Your task to perform on an android device: toggle notification dots Image 0: 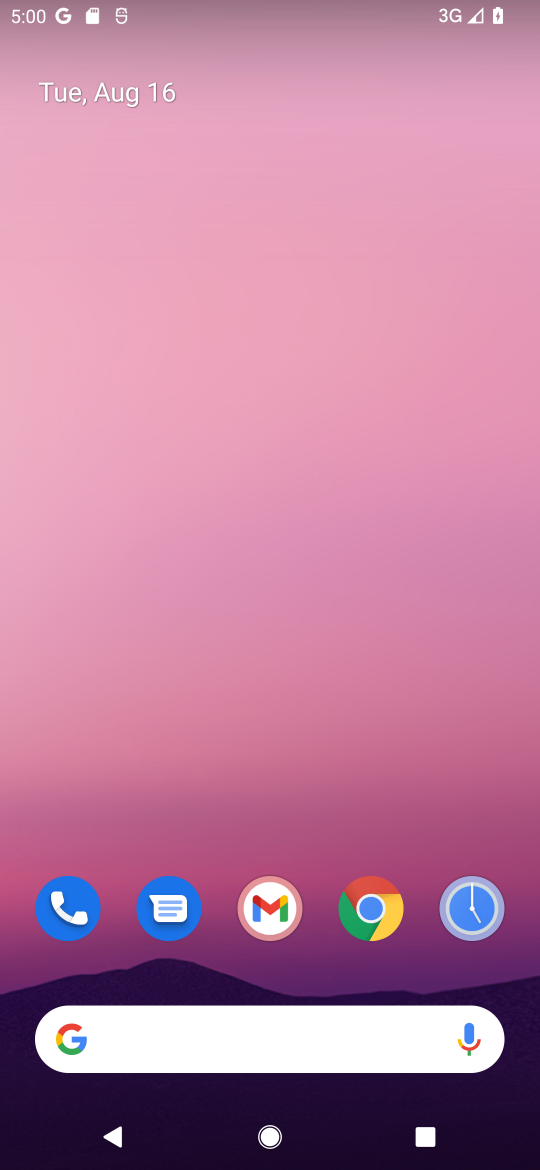
Step 0: drag from (228, 982) to (393, 135)
Your task to perform on an android device: toggle notification dots Image 1: 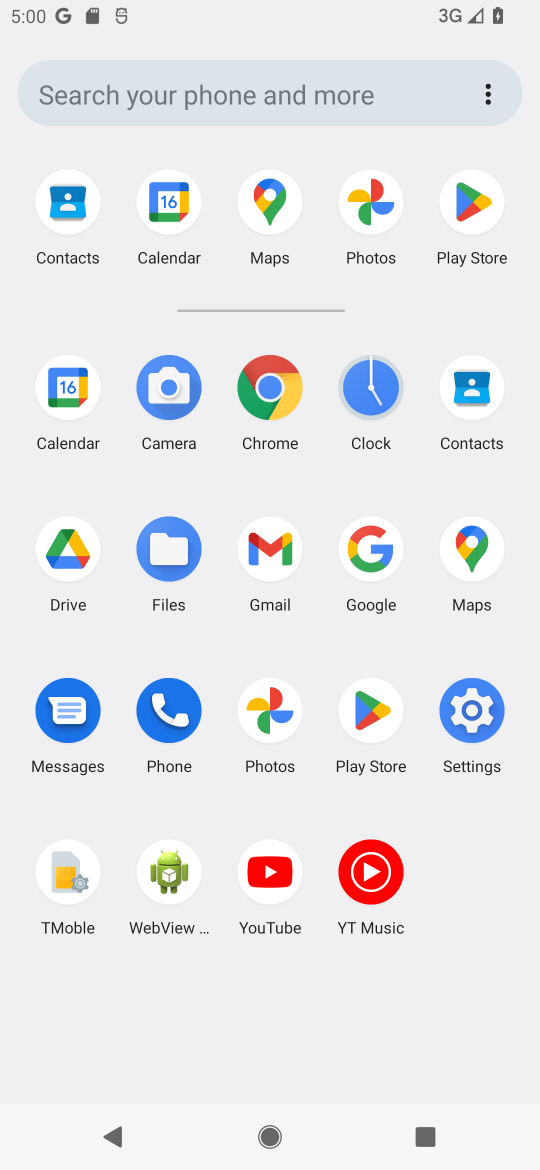
Step 1: click (474, 719)
Your task to perform on an android device: toggle notification dots Image 2: 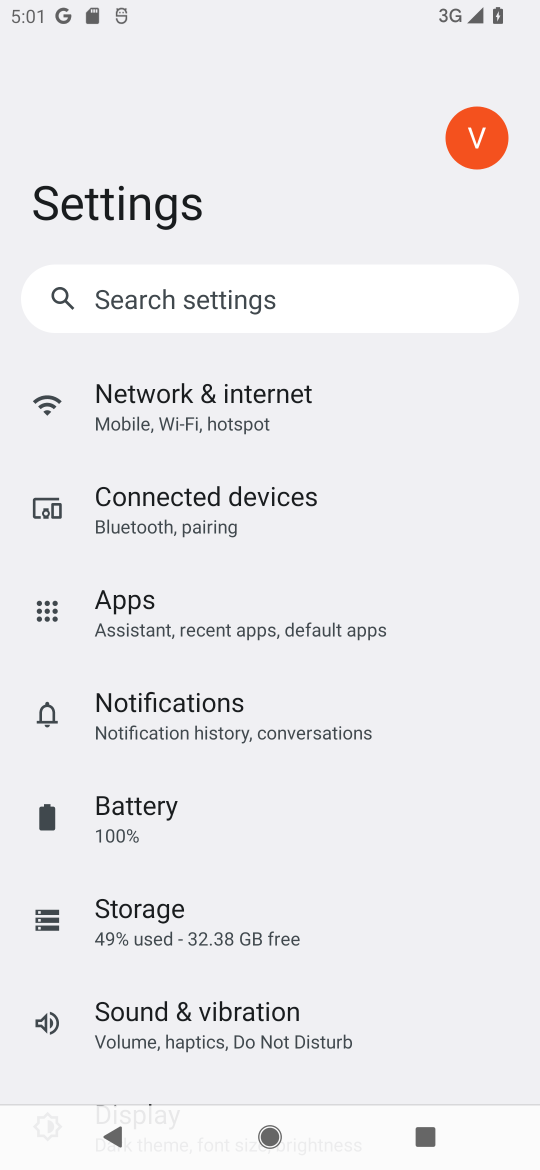
Step 2: press back button
Your task to perform on an android device: toggle notification dots Image 3: 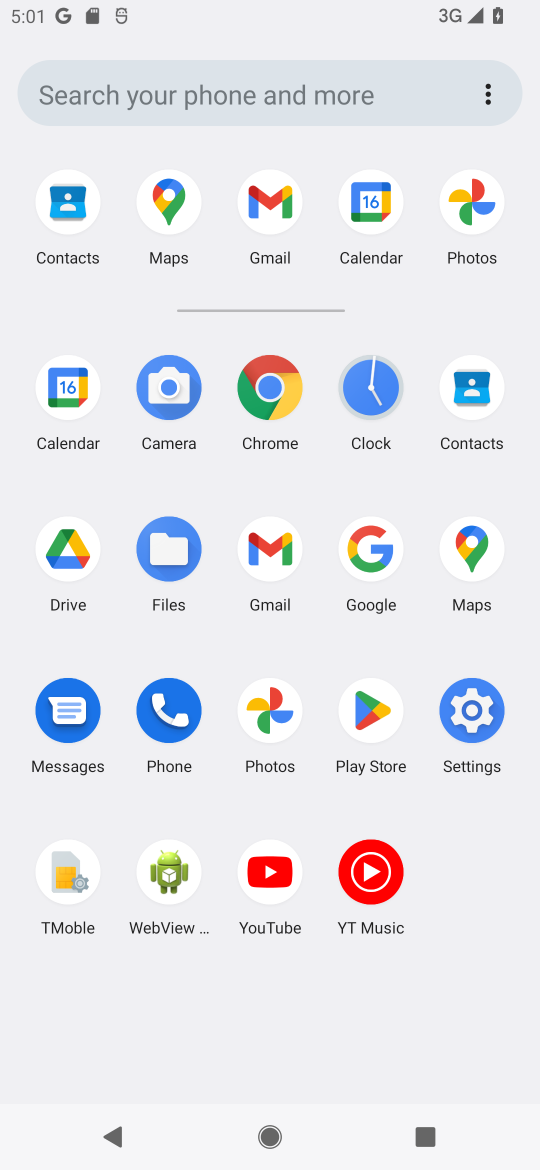
Step 3: click (465, 734)
Your task to perform on an android device: toggle notification dots Image 4: 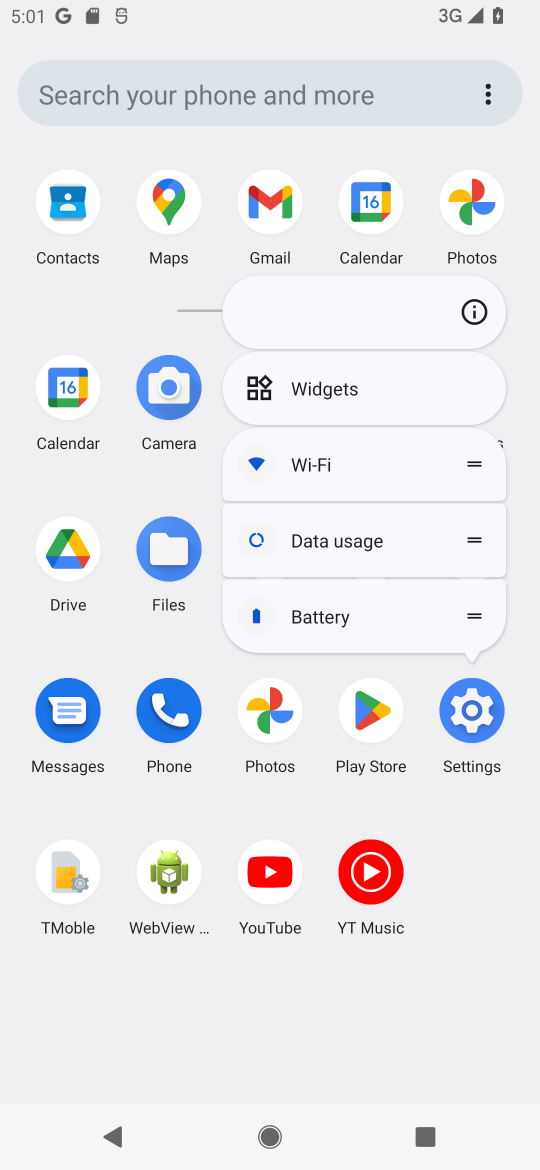
Step 4: click (485, 719)
Your task to perform on an android device: toggle notification dots Image 5: 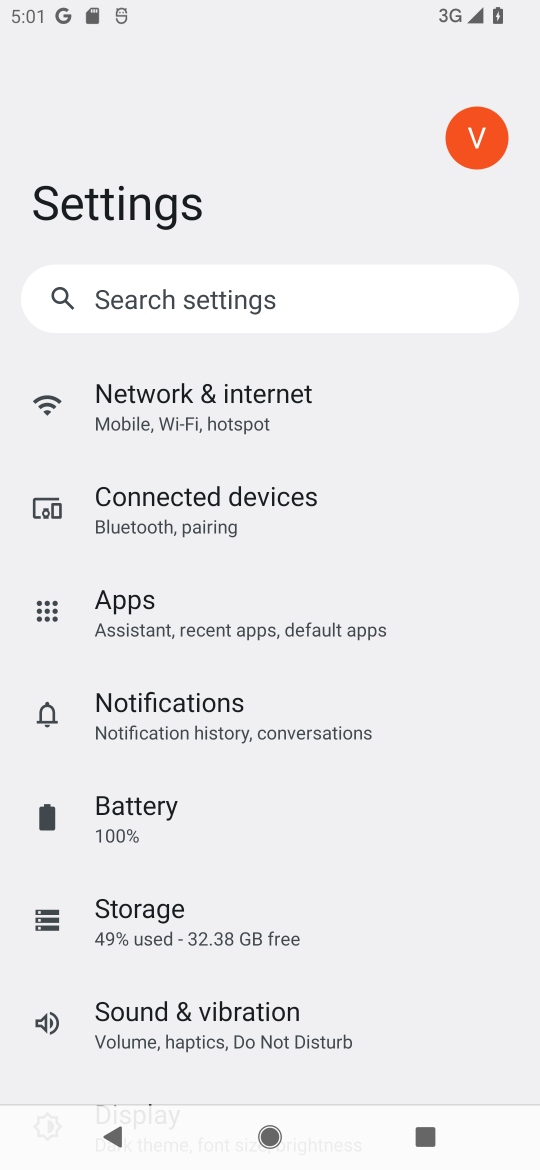
Step 5: click (195, 725)
Your task to perform on an android device: toggle notification dots Image 6: 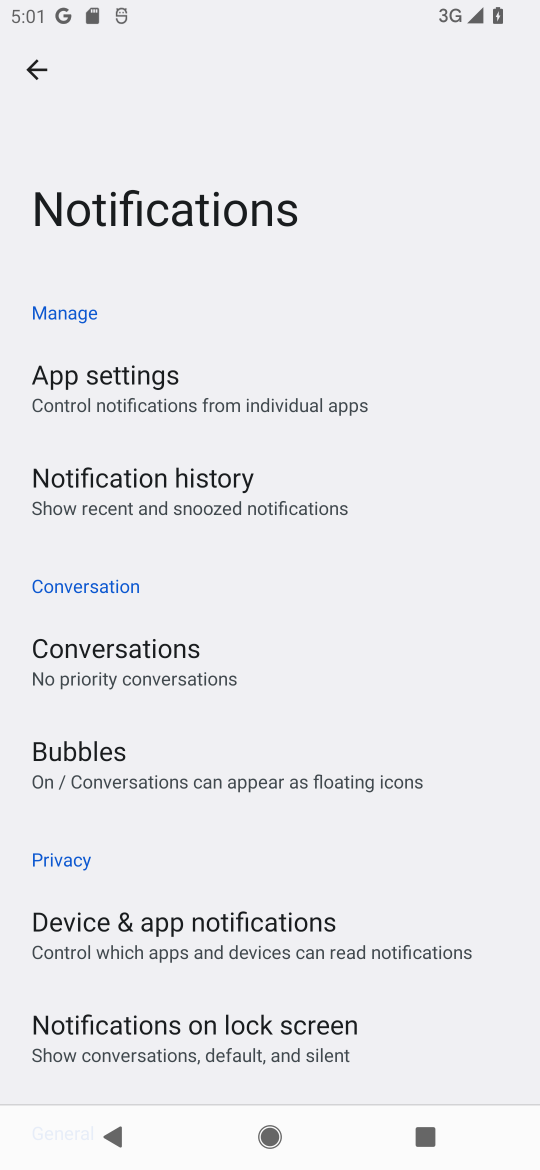
Step 6: drag from (251, 1028) to (386, 114)
Your task to perform on an android device: toggle notification dots Image 7: 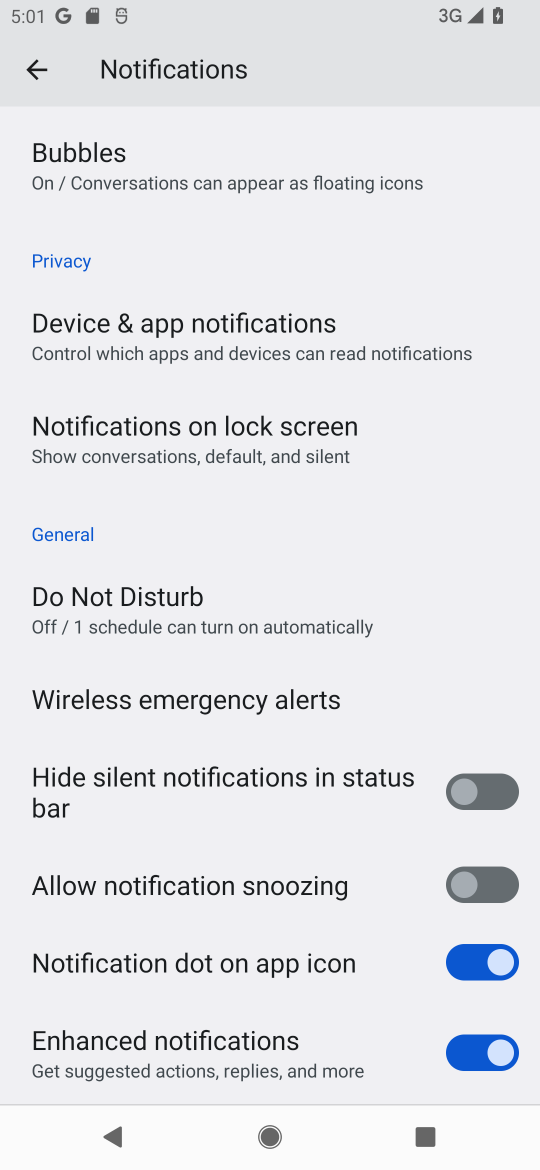
Step 7: click (488, 963)
Your task to perform on an android device: toggle notification dots Image 8: 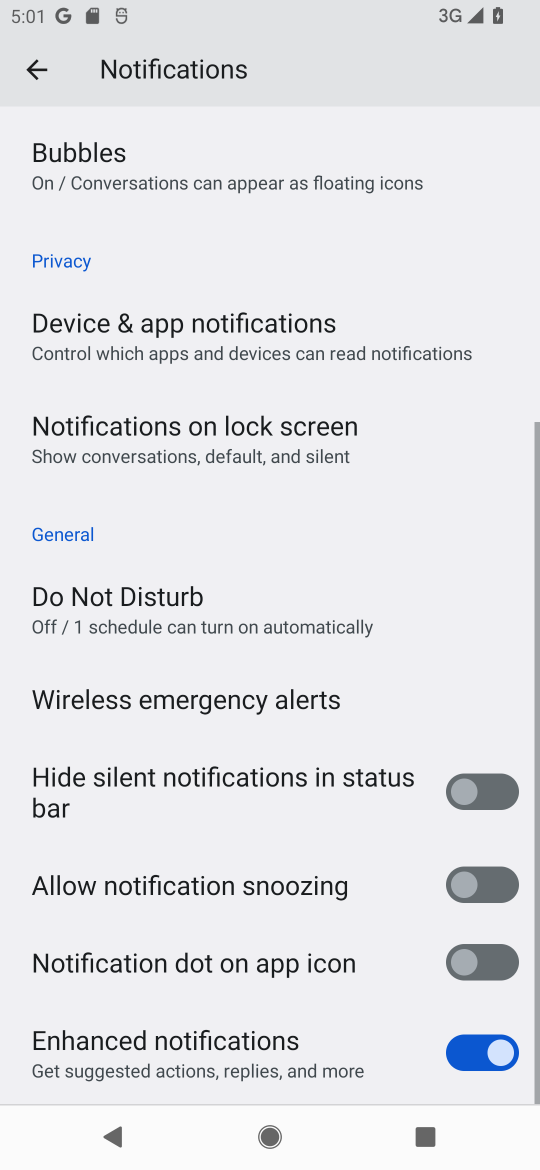
Step 8: task complete